Your task to perform on an android device: Open the map Image 0: 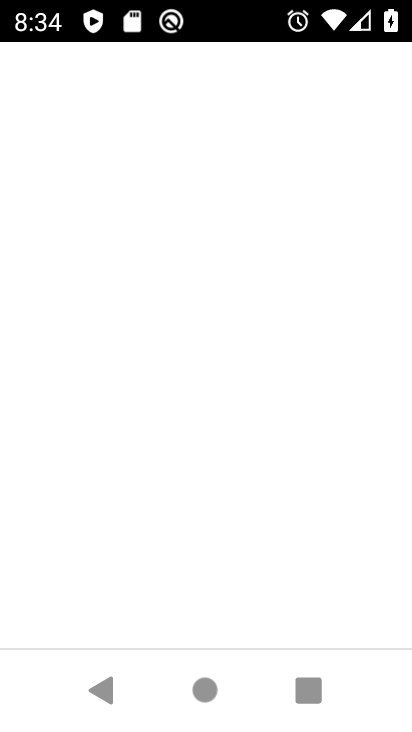
Step 0: drag from (97, 516) to (268, 78)
Your task to perform on an android device: Open the map Image 1: 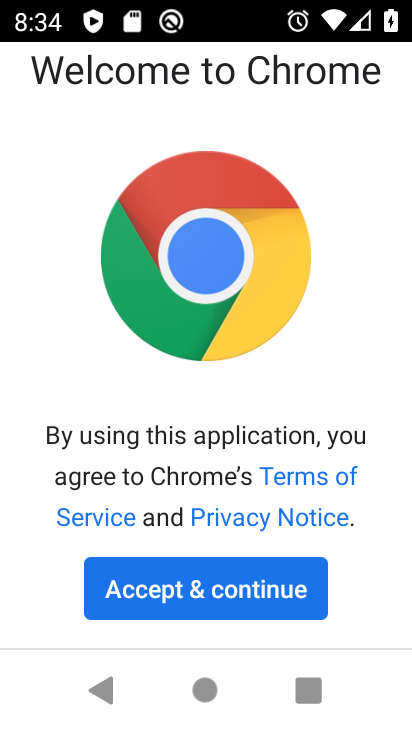
Step 1: press home button
Your task to perform on an android device: Open the map Image 2: 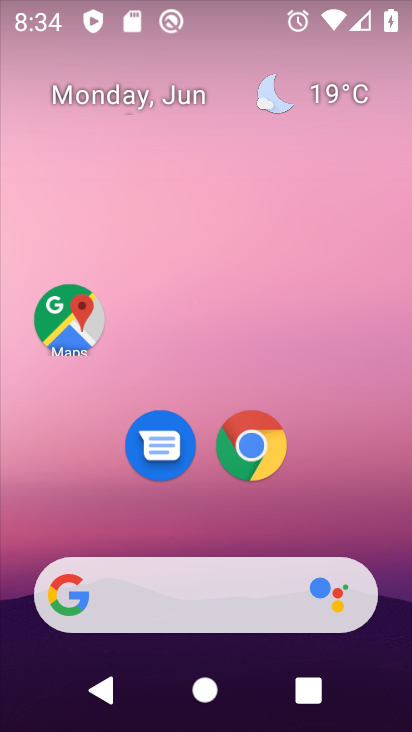
Step 2: click (82, 314)
Your task to perform on an android device: Open the map Image 3: 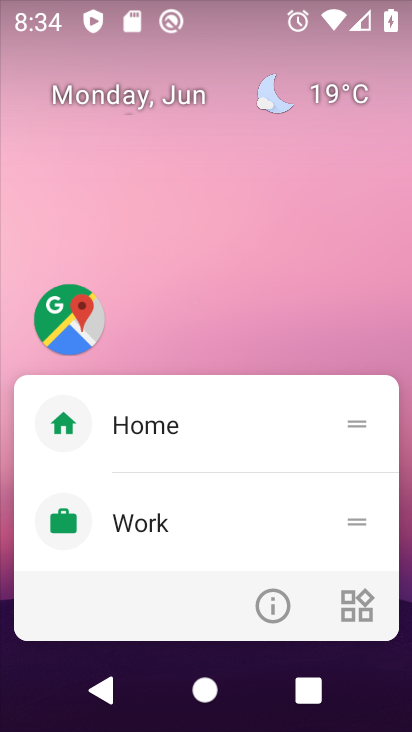
Step 3: click (74, 333)
Your task to perform on an android device: Open the map Image 4: 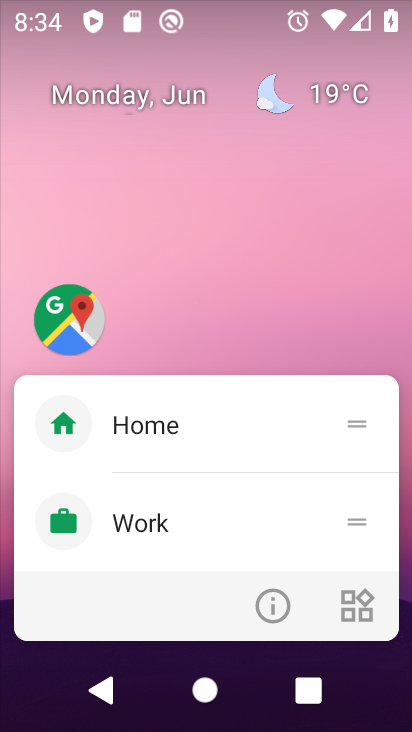
Step 4: click (68, 343)
Your task to perform on an android device: Open the map Image 5: 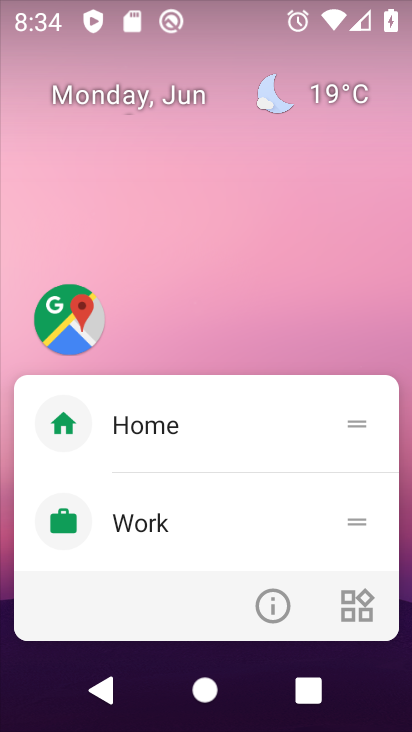
Step 5: click (69, 326)
Your task to perform on an android device: Open the map Image 6: 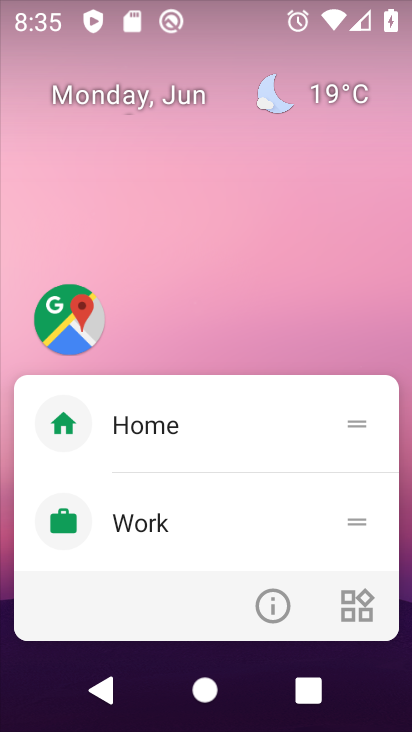
Step 6: click (83, 314)
Your task to perform on an android device: Open the map Image 7: 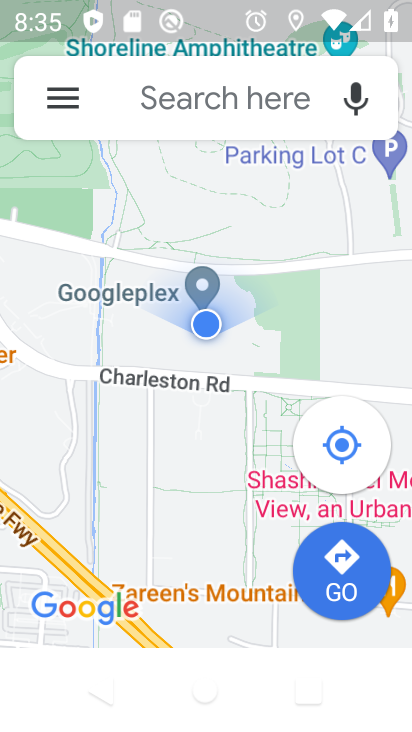
Step 7: task complete